Your task to perform on an android device: Show me the alarms in the clock app Image 0: 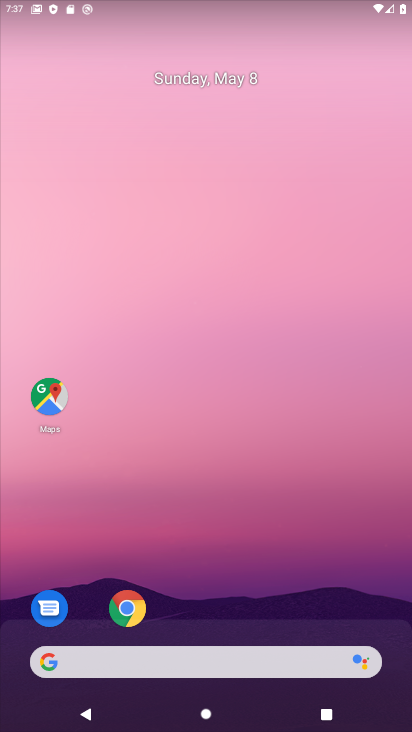
Step 0: drag from (269, 639) to (279, 161)
Your task to perform on an android device: Show me the alarms in the clock app Image 1: 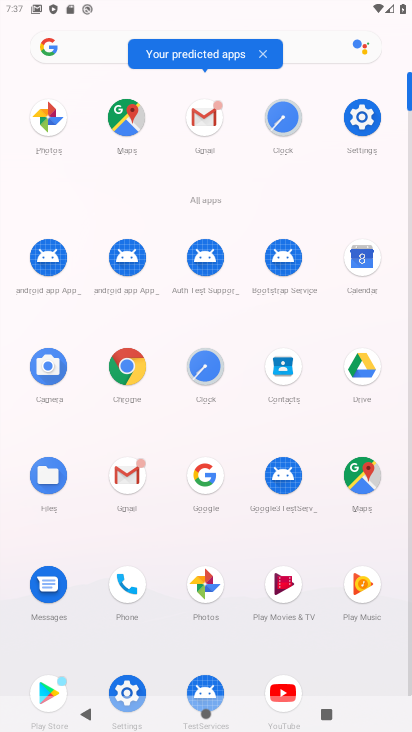
Step 1: click (217, 366)
Your task to perform on an android device: Show me the alarms in the clock app Image 2: 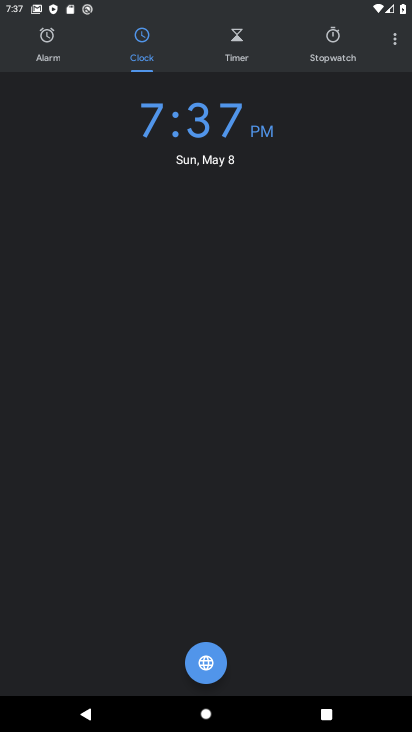
Step 2: click (50, 41)
Your task to perform on an android device: Show me the alarms in the clock app Image 3: 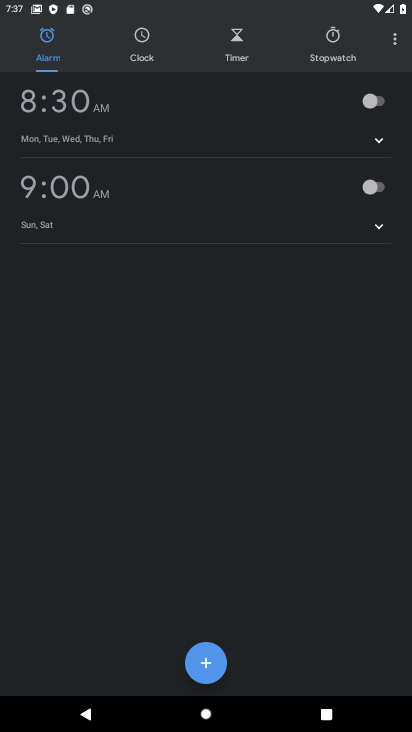
Step 3: task complete